Your task to perform on an android device: open app "TextNow: Call + Text Unlimited" (install if not already installed), go to login, and select forgot password Image 0: 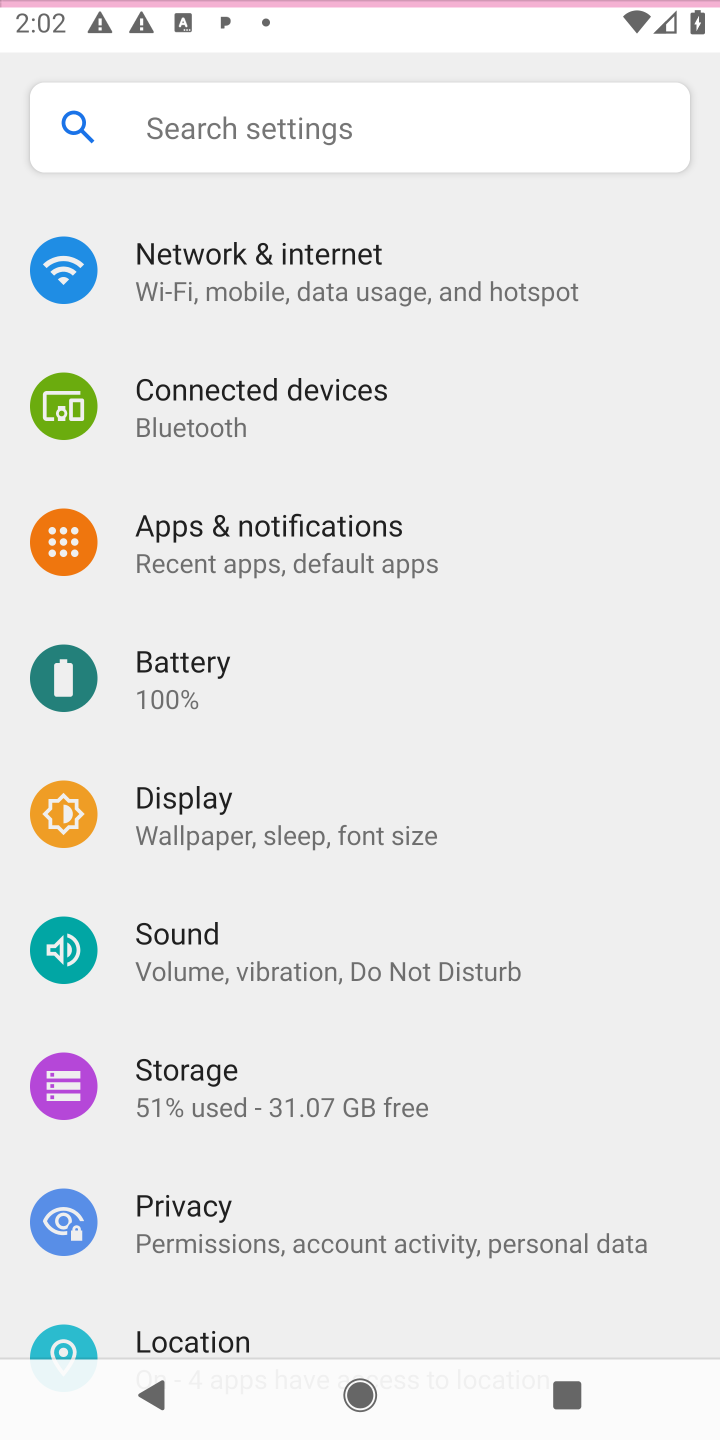
Step 0: press home button
Your task to perform on an android device: open app "TextNow: Call + Text Unlimited" (install if not already installed), go to login, and select forgot password Image 1: 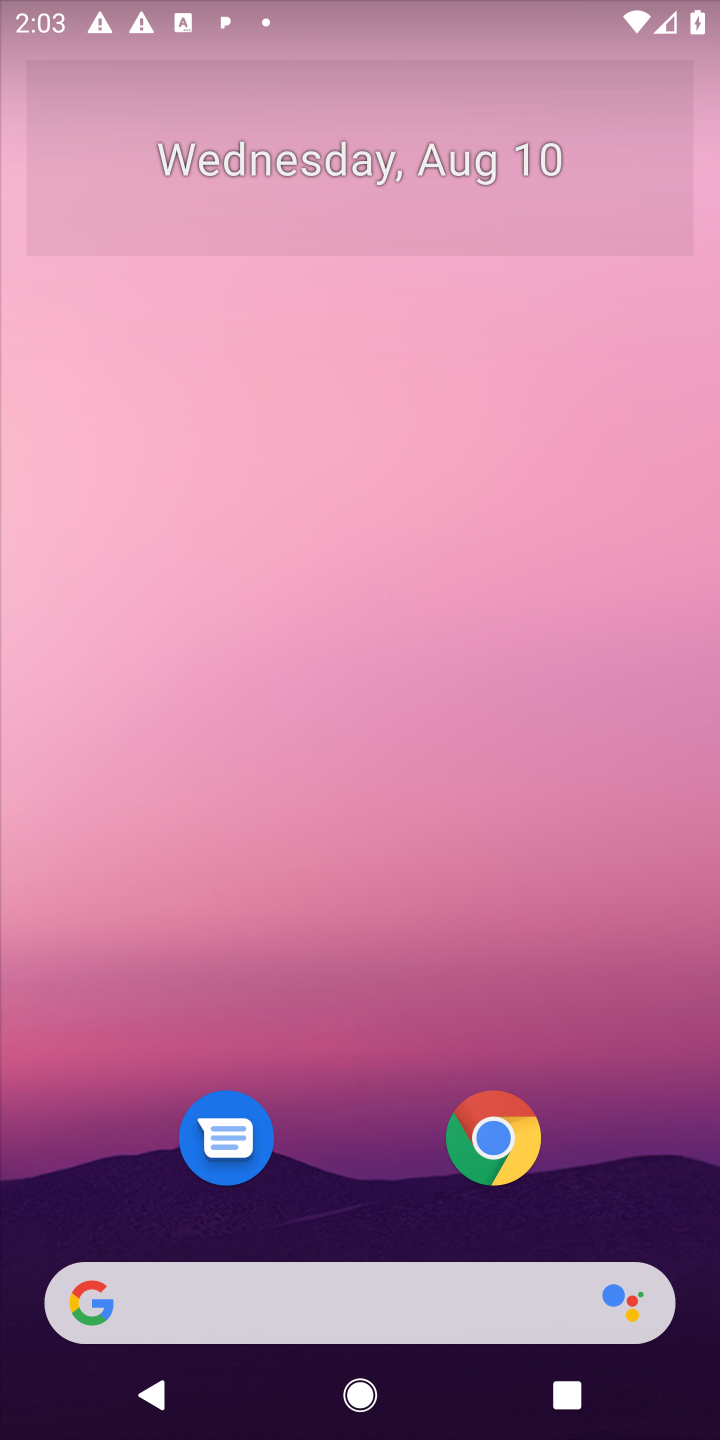
Step 1: drag from (607, 1151) to (620, 94)
Your task to perform on an android device: open app "TextNow: Call + Text Unlimited" (install if not already installed), go to login, and select forgot password Image 2: 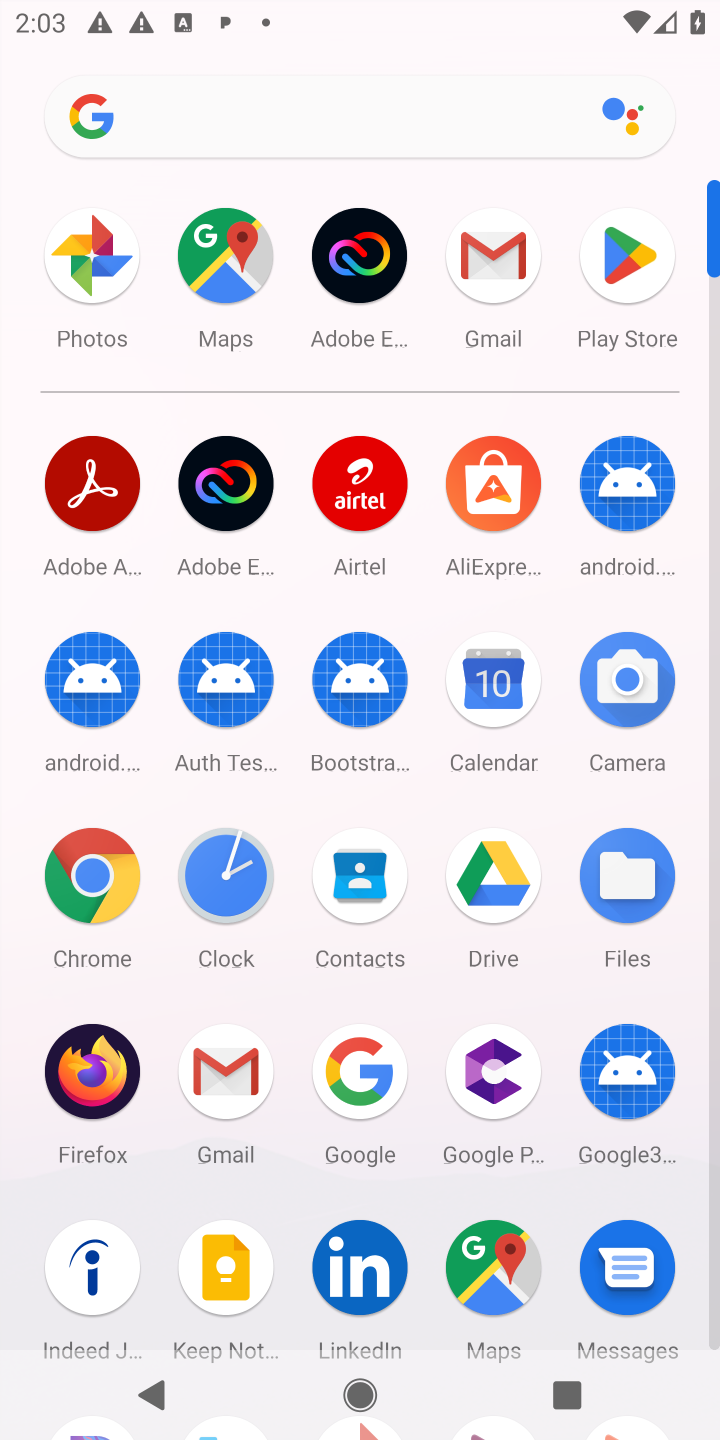
Step 2: click (621, 250)
Your task to perform on an android device: open app "TextNow: Call + Text Unlimited" (install if not already installed), go to login, and select forgot password Image 3: 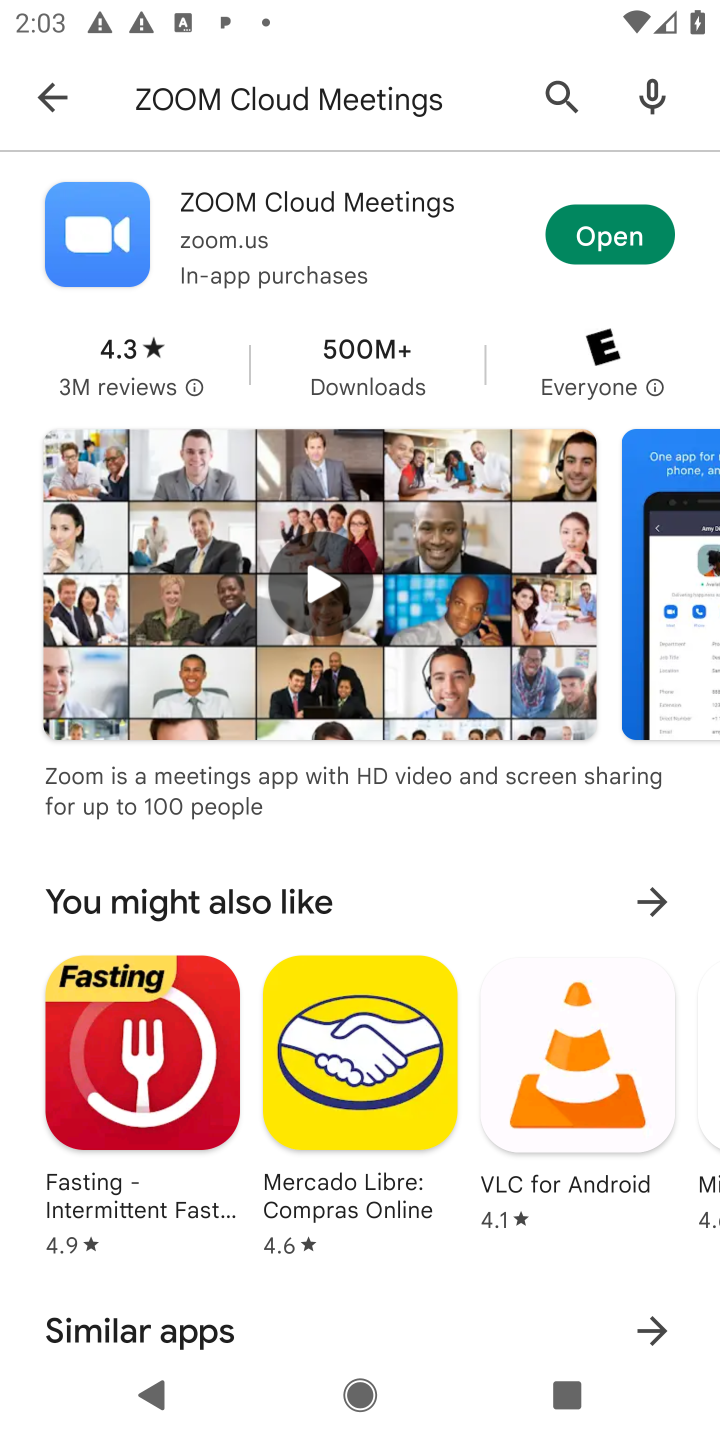
Step 3: click (613, 241)
Your task to perform on an android device: open app "TextNow: Call + Text Unlimited" (install if not already installed), go to login, and select forgot password Image 4: 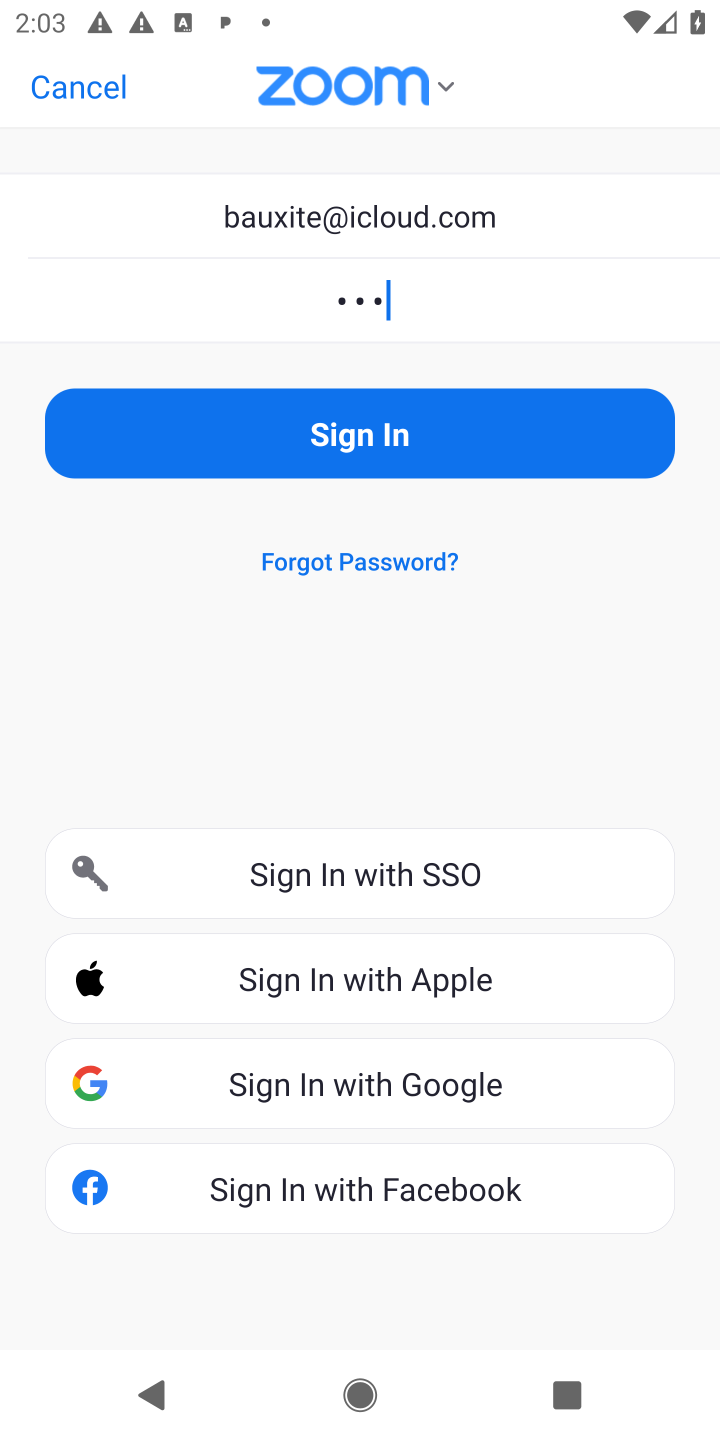
Step 4: press home button
Your task to perform on an android device: open app "TextNow: Call + Text Unlimited" (install if not already installed), go to login, and select forgot password Image 5: 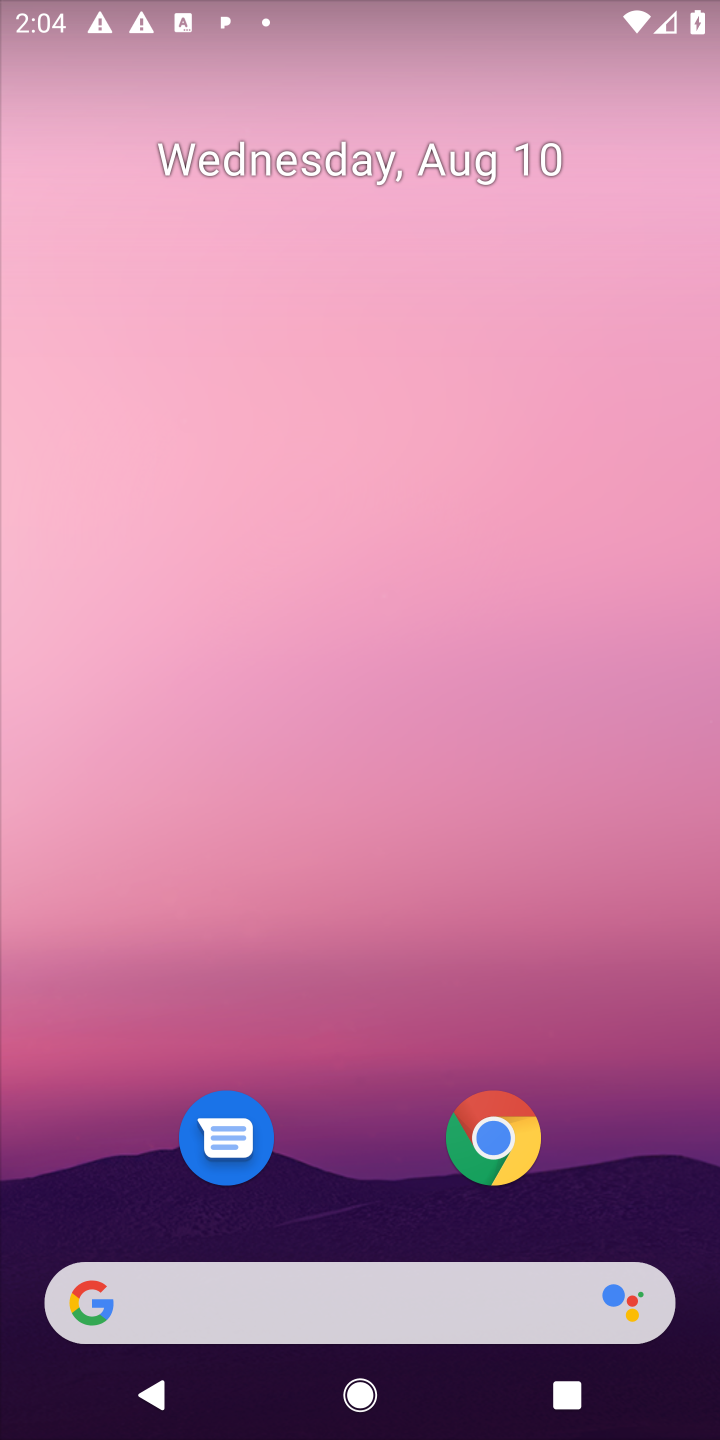
Step 5: drag from (620, 847) to (623, 77)
Your task to perform on an android device: open app "TextNow: Call + Text Unlimited" (install if not already installed), go to login, and select forgot password Image 6: 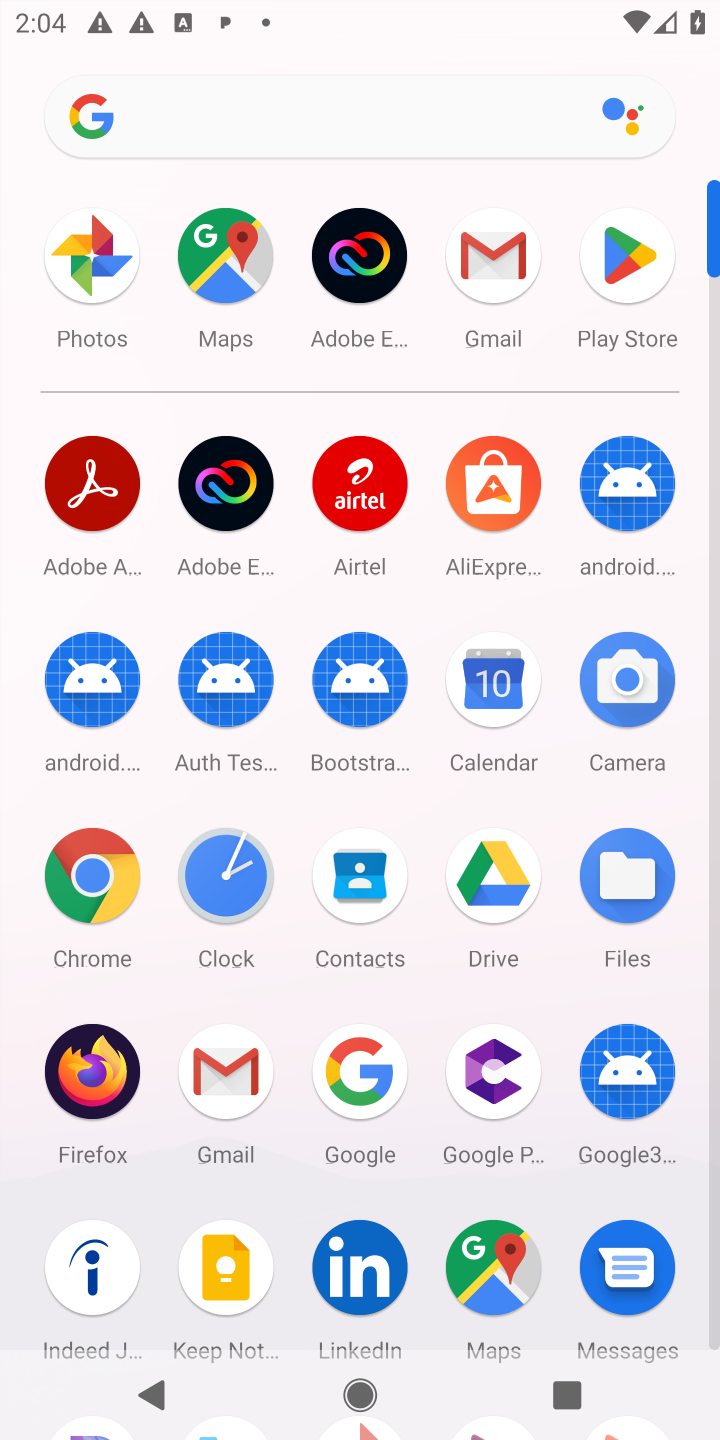
Step 6: click (629, 259)
Your task to perform on an android device: open app "TextNow: Call + Text Unlimited" (install if not already installed), go to login, and select forgot password Image 7: 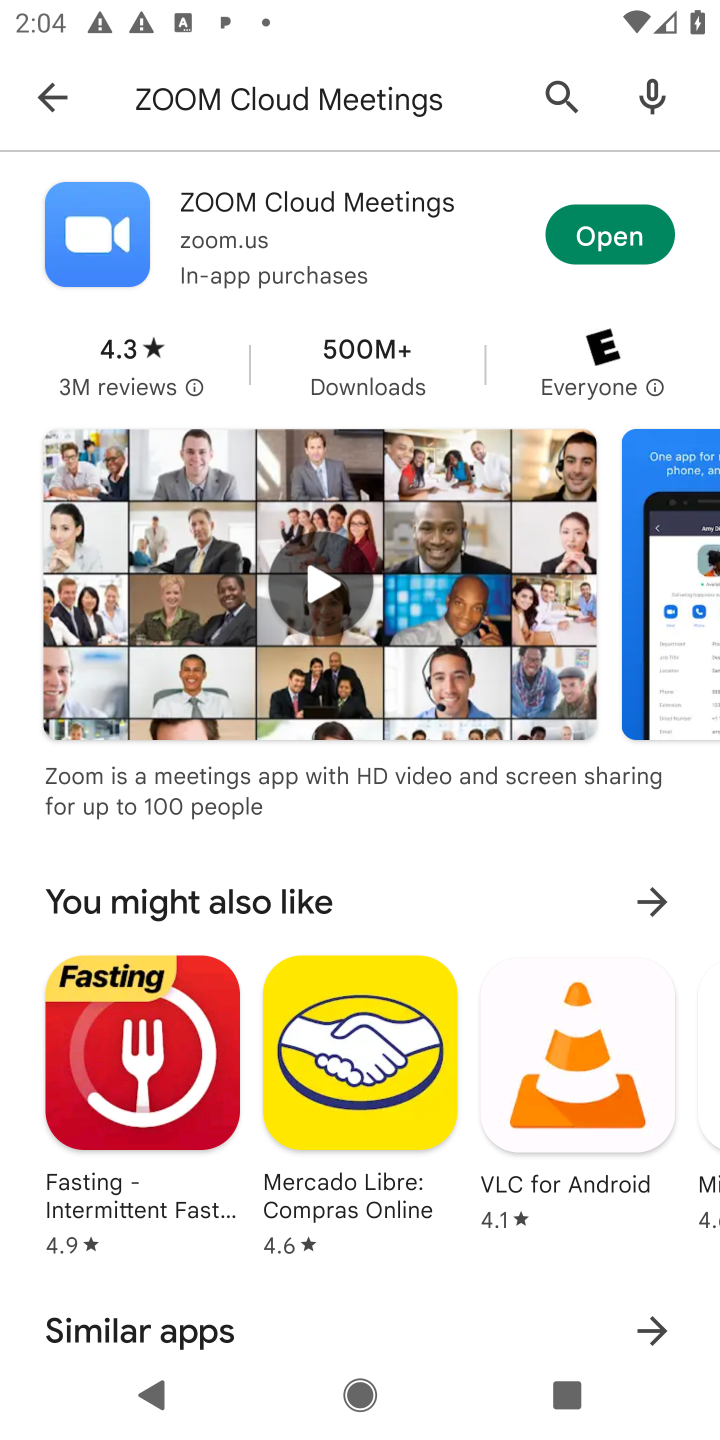
Step 7: click (557, 90)
Your task to perform on an android device: open app "TextNow: Call + Text Unlimited" (install if not already installed), go to login, and select forgot password Image 8: 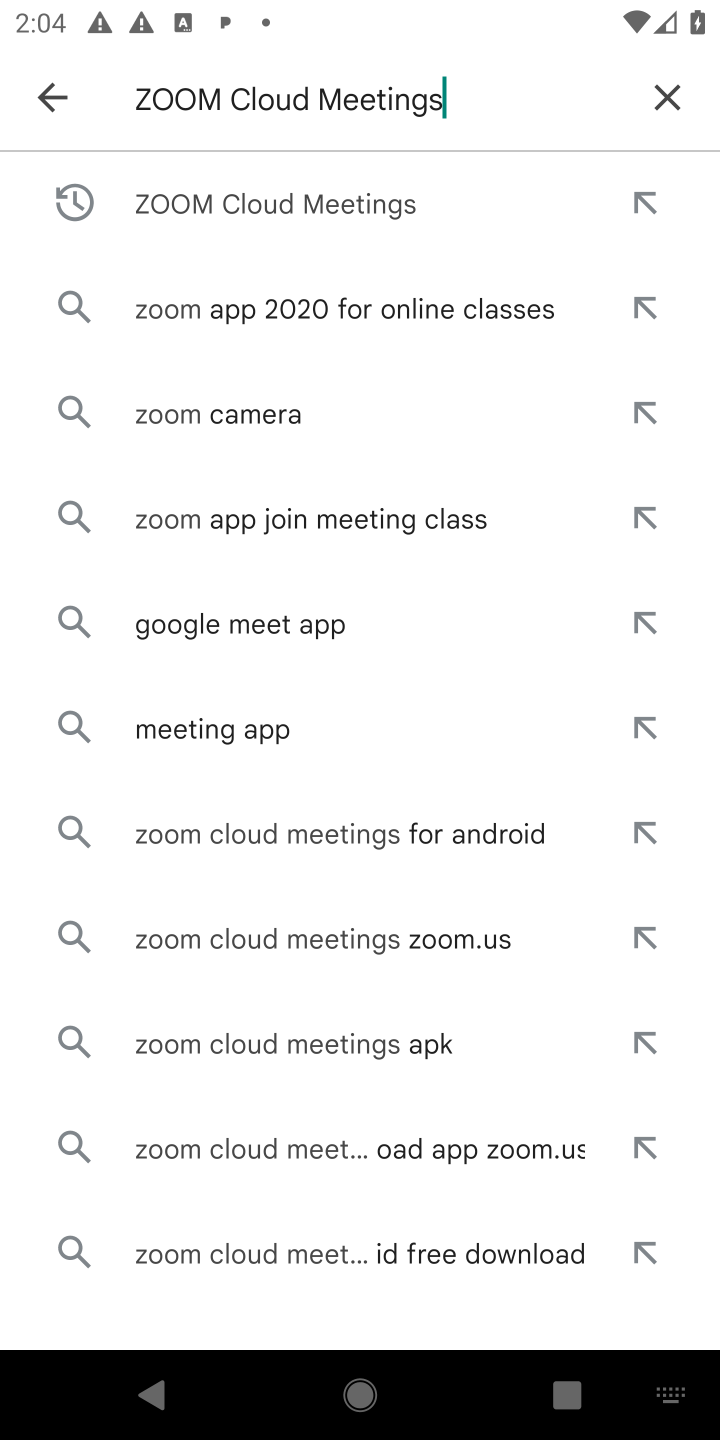
Step 8: click (668, 94)
Your task to perform on an android device: open app "TextNow: Call + Text Unlimited" (install if not already installed), go to login, and select forgot password Image 9: 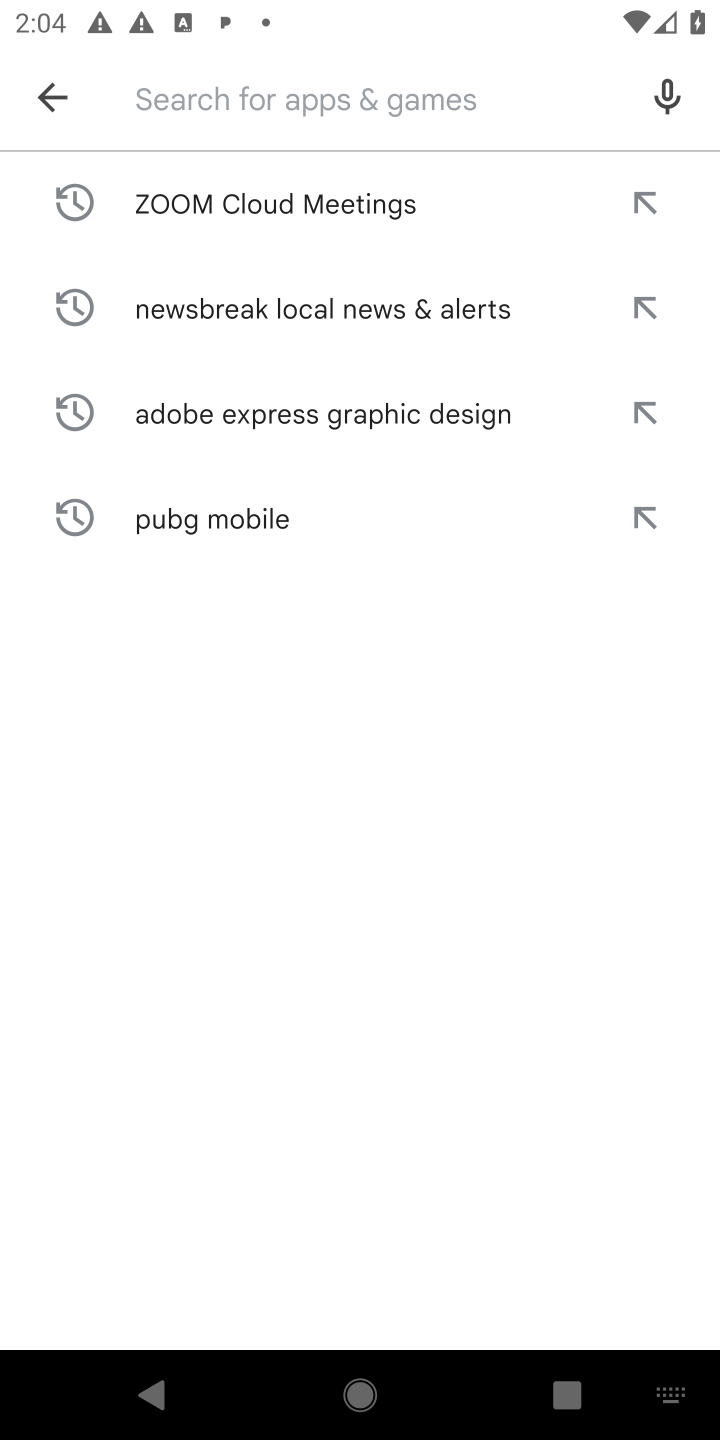
Step 9: press enter
Your task to perform on an android device: open app "TextNow: Call + Text Unlimited" (install if not already installed), go to login, and select forgot password Image 10: 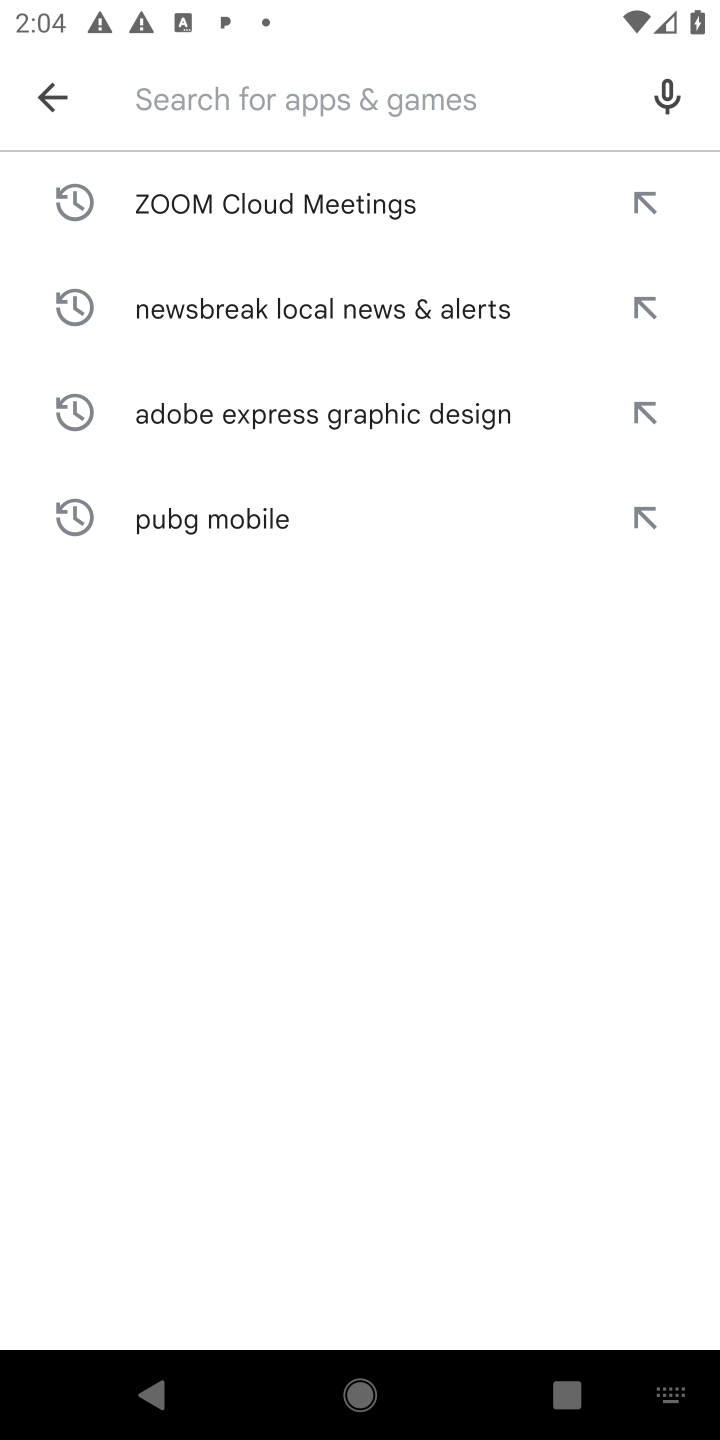
Step 10: type "TextNow: Call + Text Unlimited"
Your task to perform on an android device: open app "TextNow: Call + Text Unlimited" (install if not already installed), go to login, and select forgot password Image 11: 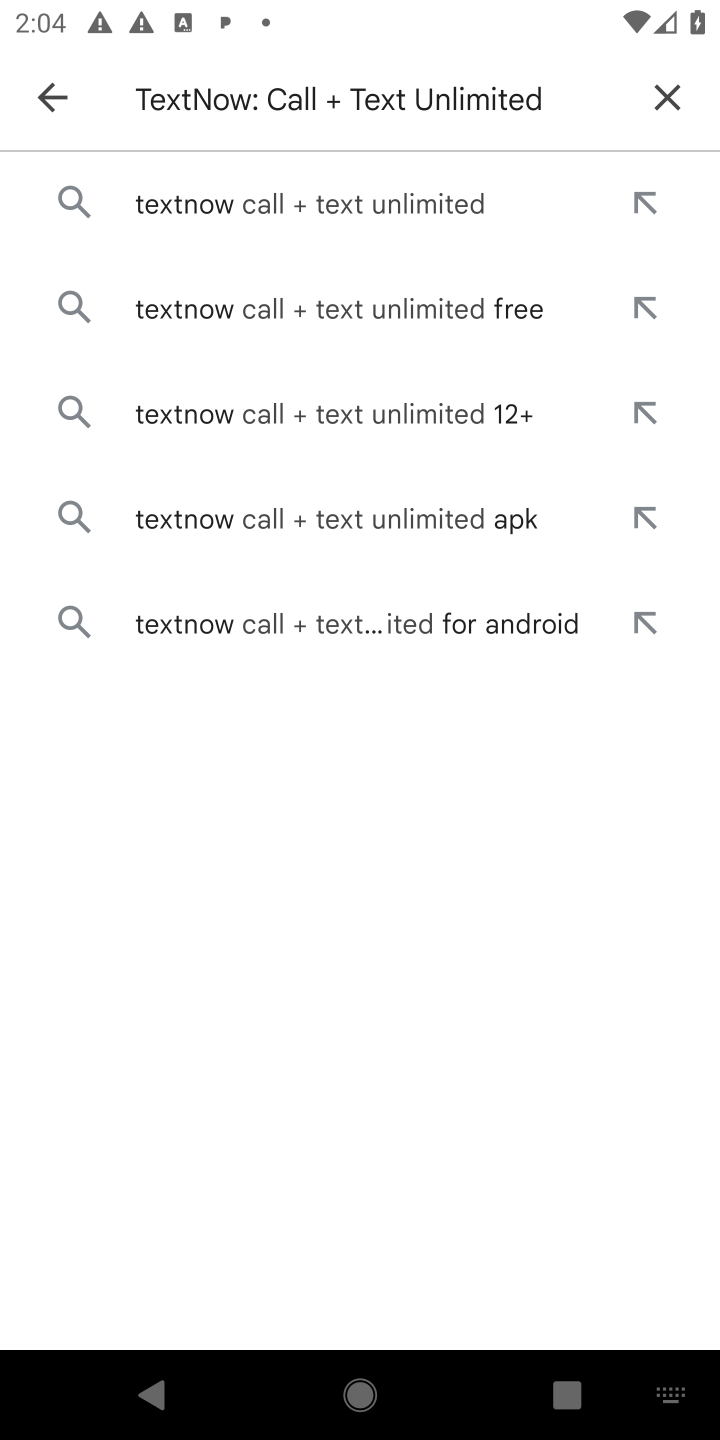
Step 11: click (402, 192)
Your task to perform on an android device: open app "TextNow: Call + Text Unlimited" (install if not already installed), go to login, and select forgot password Image 12: 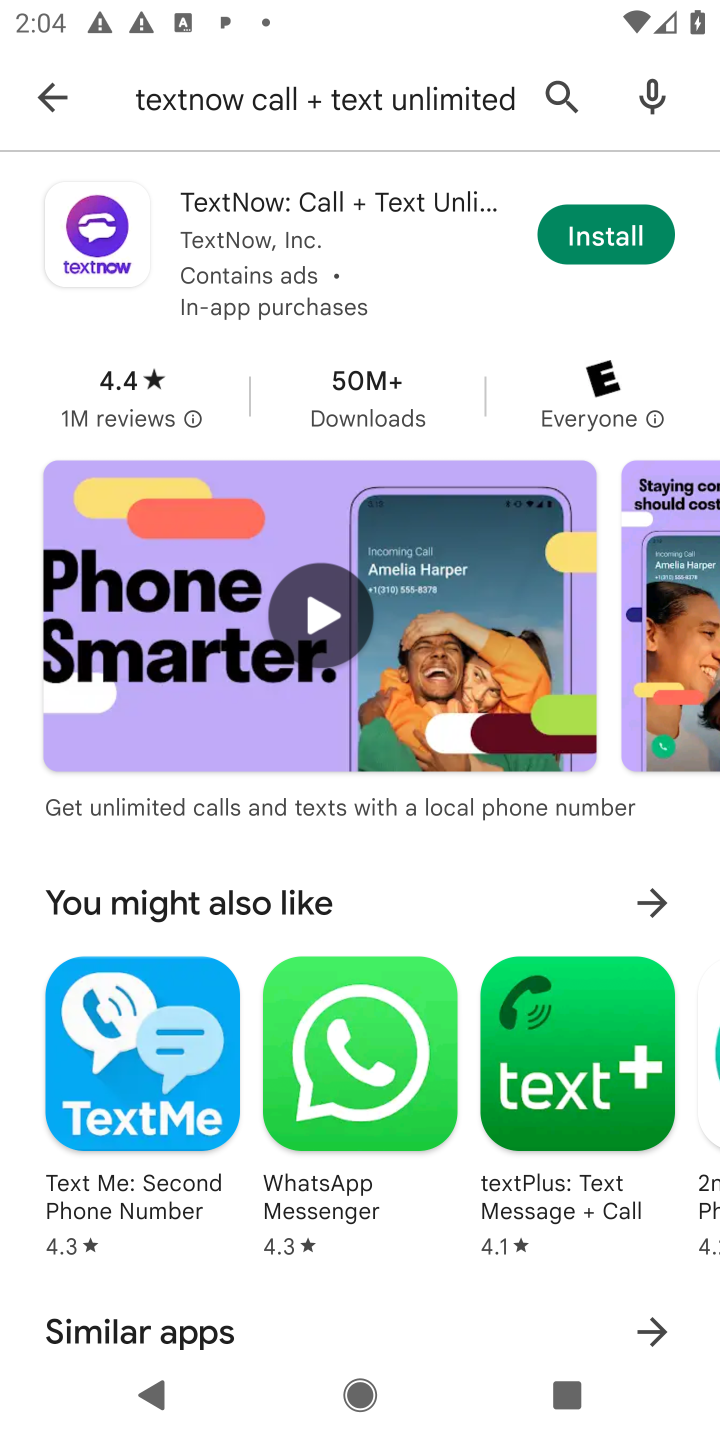
Step 12: click (612, 234)
Your task to perform on an android device: open app "TextNow: Call + Text Unlimited" (install if not already installed), go to login, and select forgot password Image 13: 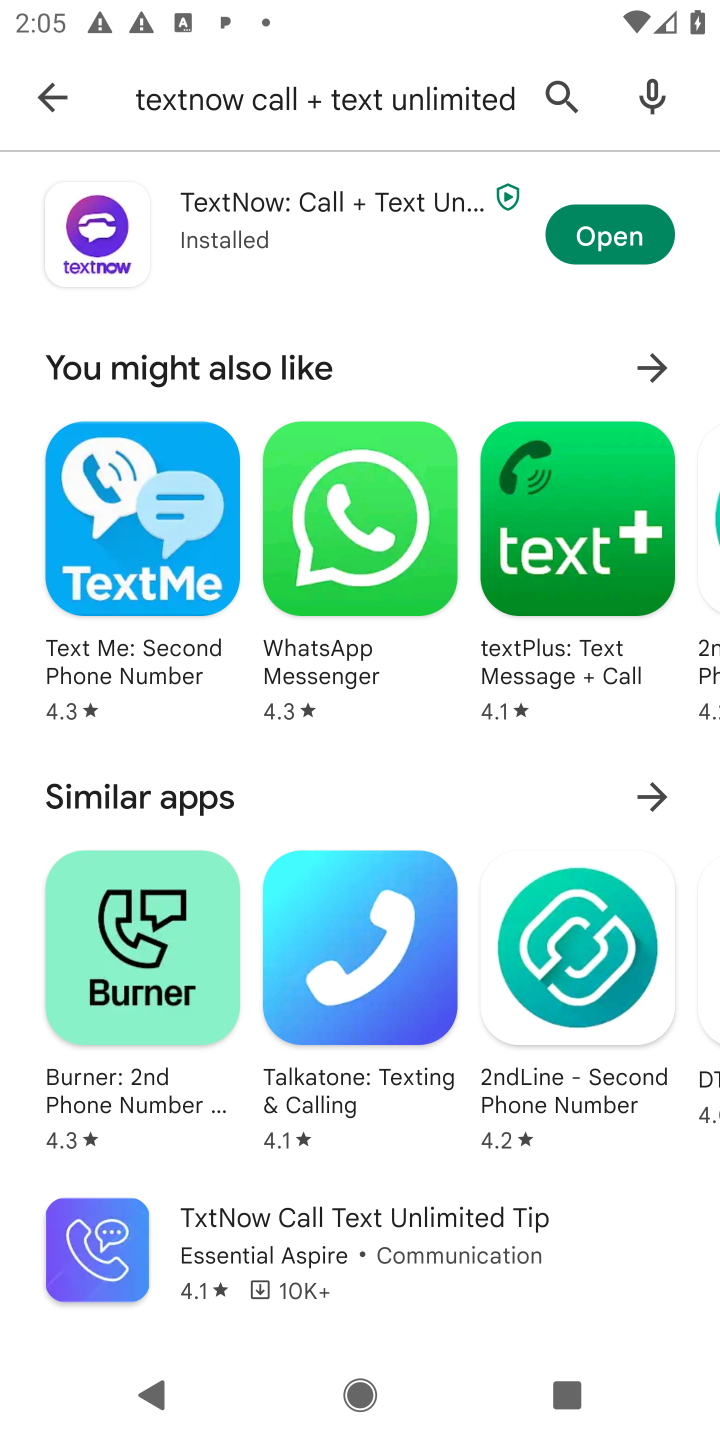
Step 13: click (622, 236)
Your task to perform on an android device: open app "TextNow: Call + Text Unlimited" (install if not already installed), go to login, and select forgot password Image 14: 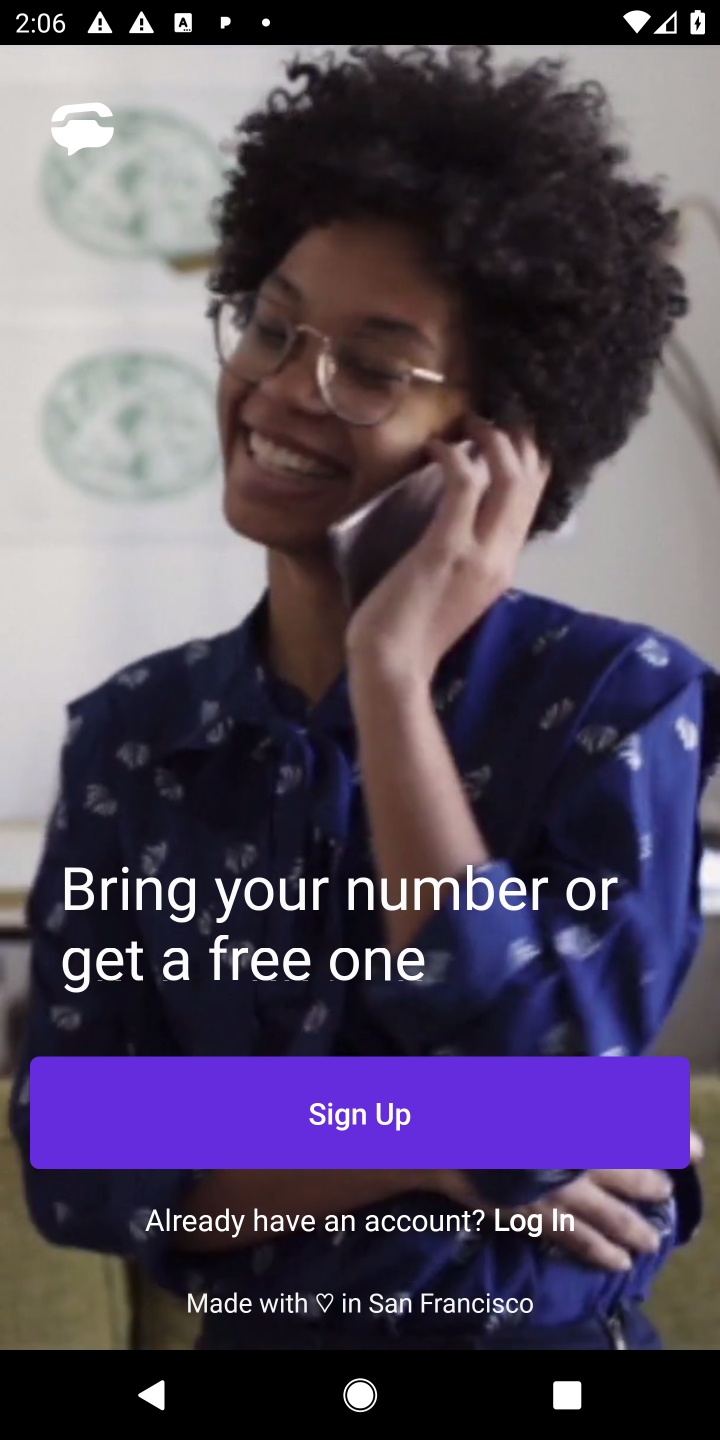
Step 14: click (539, 1226)
Your task to perform on an android device: open app "TextNow: Call + Text Unlimited" (install if not already installed), go to login, and select forgot password Image 15: 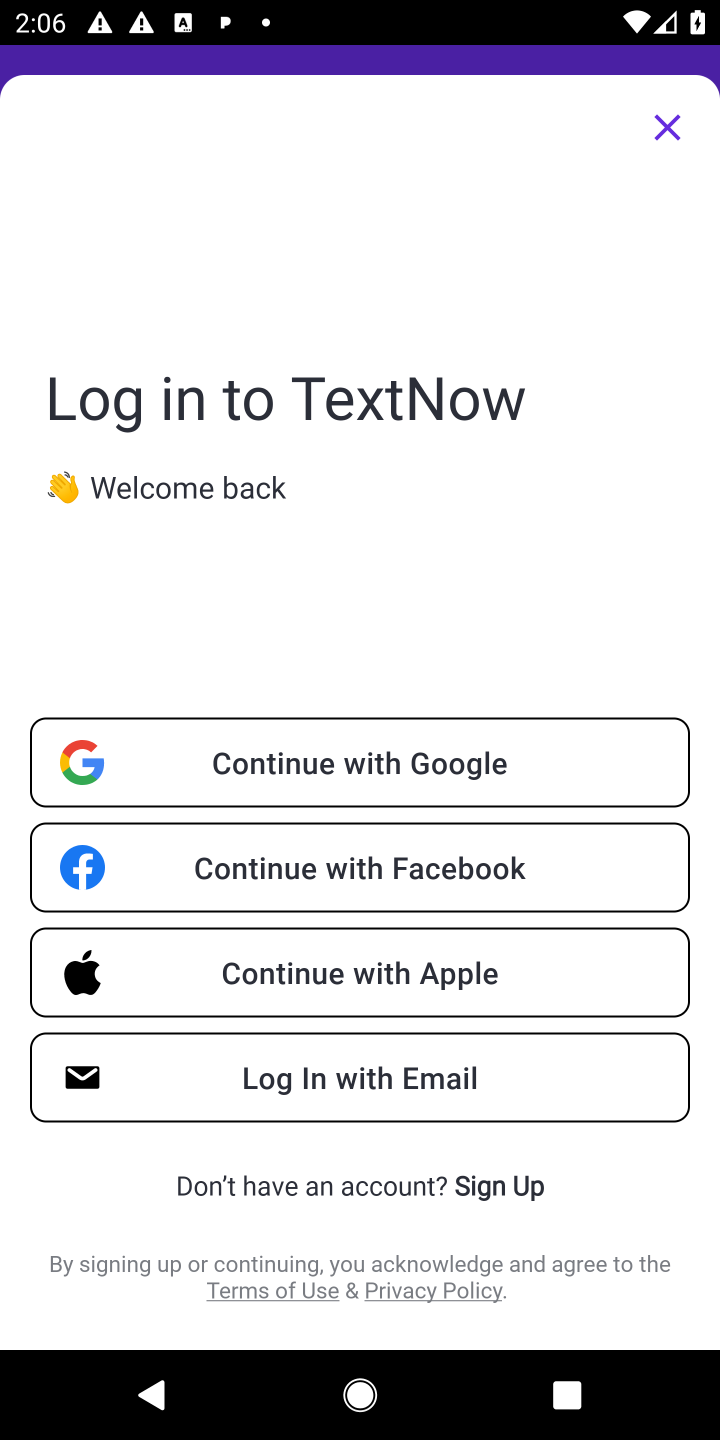
Step 15: task complete